Your task to perform on an android device: Open privacy settings Image 0: 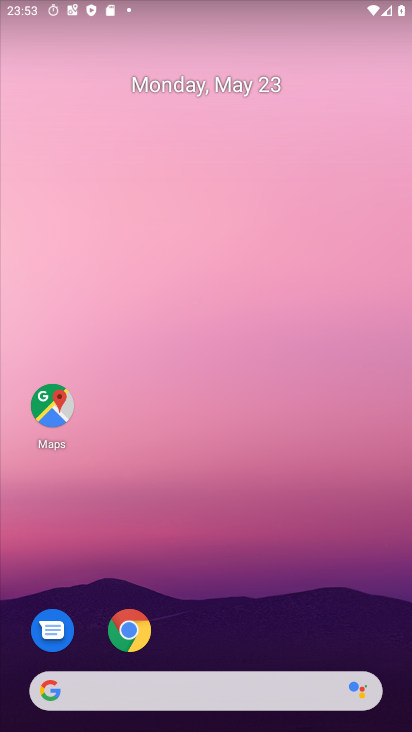
Step 0: drag from (269, 638) to (327, 2)
Your task to perform on an android device: Open privacy settings Image 1: 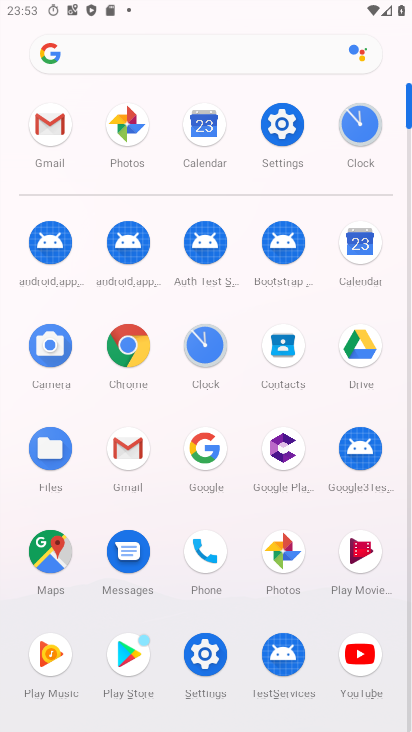
Step 1: click (282, 126)
Your task to perform on an android device: Open privacy settings Image 2: 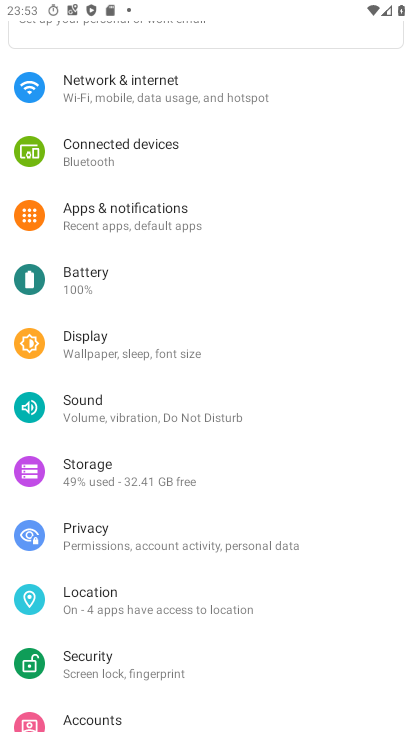
Step 2: click (78, 532)
Your task to perform on an android device: Open privacy settings Image 3: 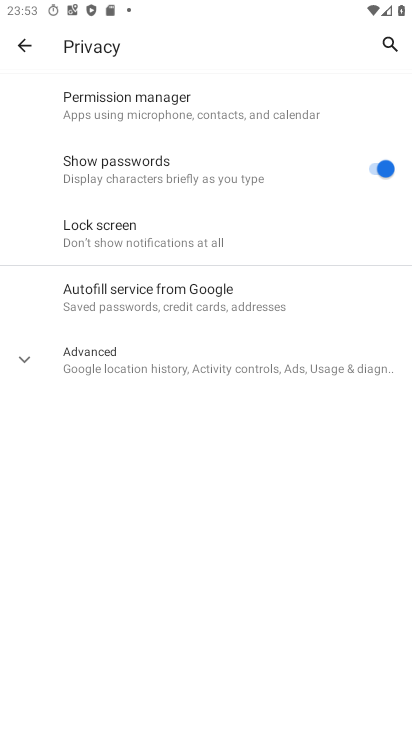
Step 3: task complete